Your task to perform on an android device: Do I have any events tomorrow? Image 0: 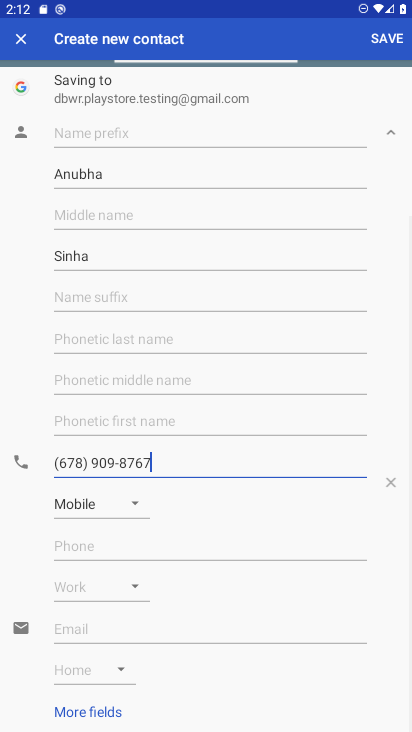
Step 0: drag from (222, 639) to (239, 290)
Your task to perform on an android device: Do I have any events tomorrow? Image 1: 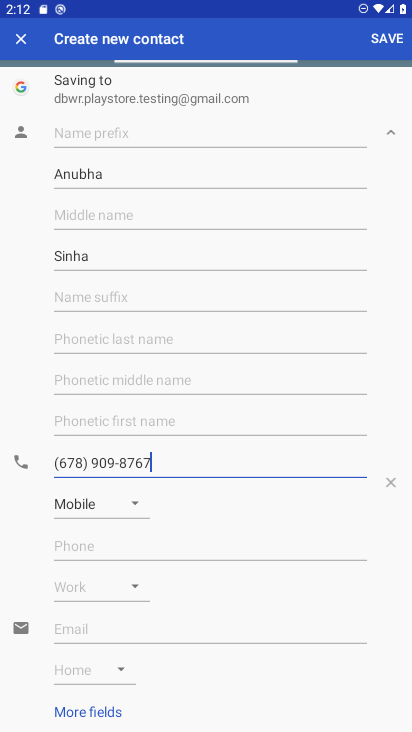
Step 1: press home button
Your task to perform on an android device: Do I have any events tomorrow? Image 2: 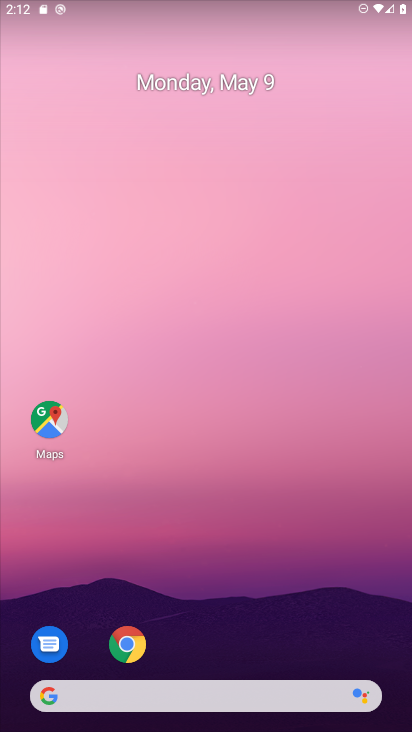
Step 2: drag from (230, 617) to (288, 169)
Your task to perform on an android device: Do I have any events tomorrow? Image 3: 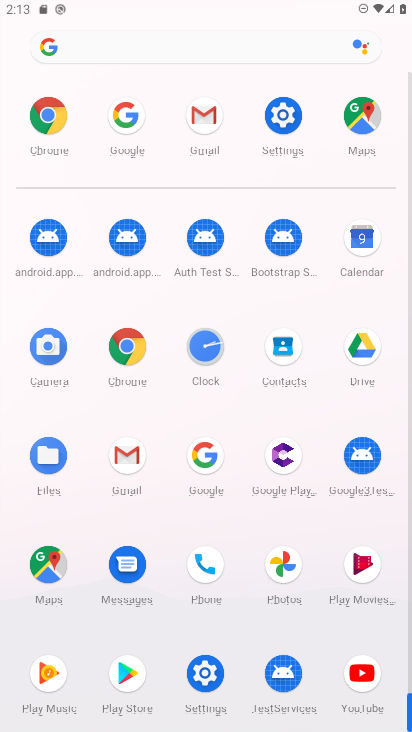
Step 3: click (352, 274)
Your task to perform on an android device: Do I have any events tomorrow? Image 4: 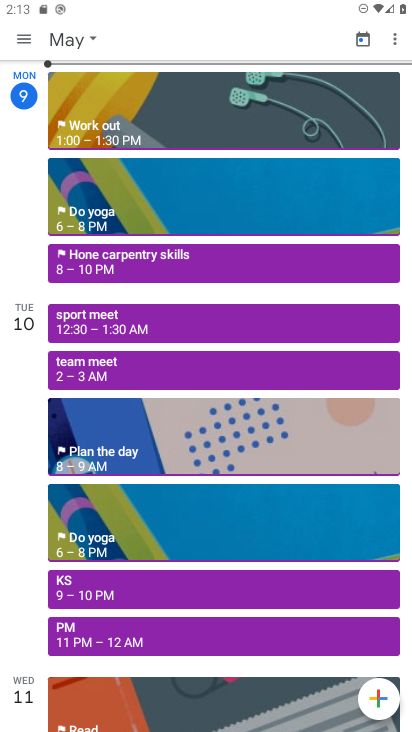
Step 4: task complete